Your task to perform on an android device: Go to internet settings Image 0: 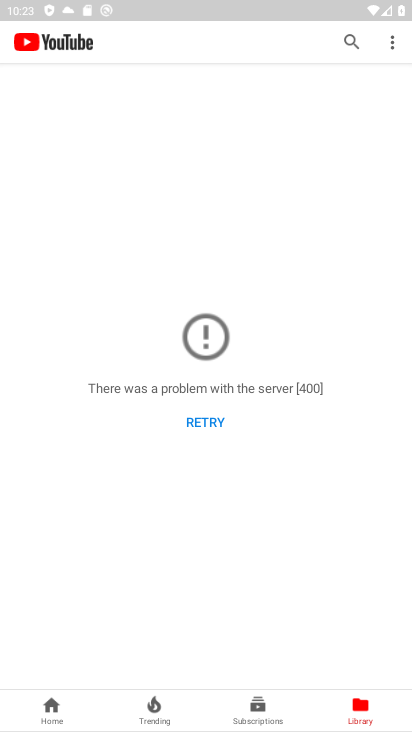
Step 0: press home button
Your task to perform on an android device: Go to internet settings Image 1: 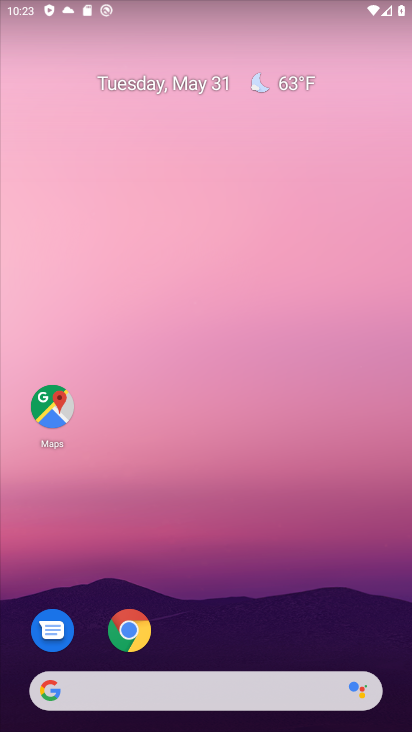
Step 1: drag from (210, 641) to (185, 150)
Your task to perform on an android device: Go to internet settings Image 2: 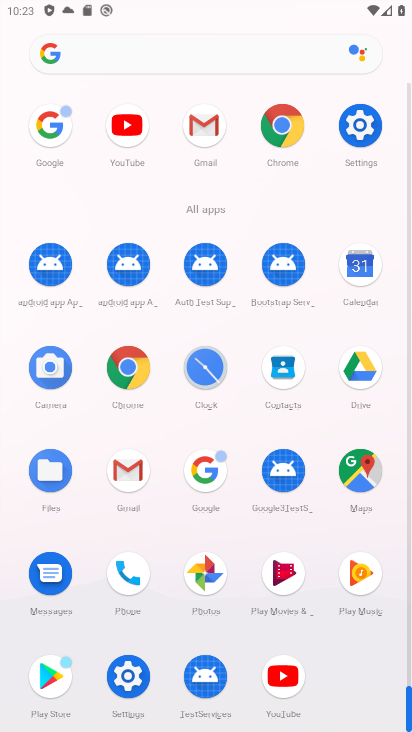
Step 2: click (349, 134)
Your task to perform on an android device: Go to internet settings Image 3: 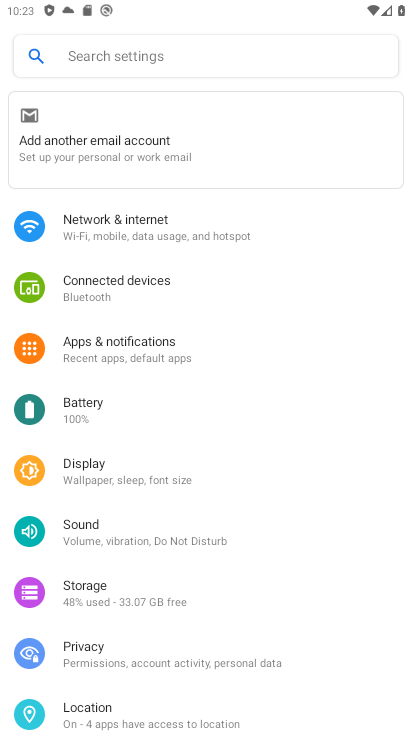
Step 3: click (118, 236)
Your task to perform on an android device: Go to internet settings Image 4: 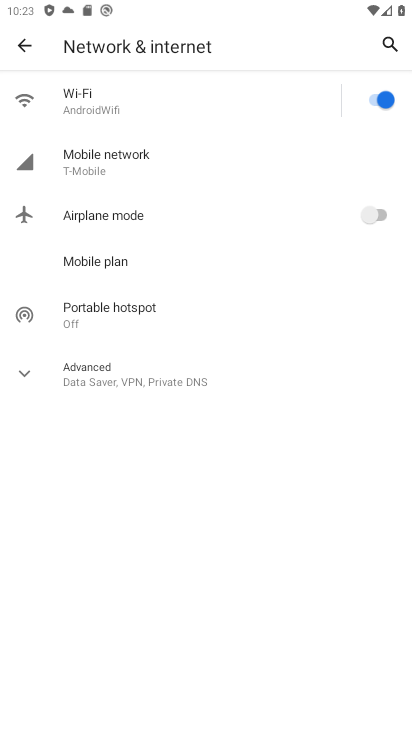
Step 4: task complete